Your task to perform on an android device: Open Google Chrome and open the bookmarks view Image 0: 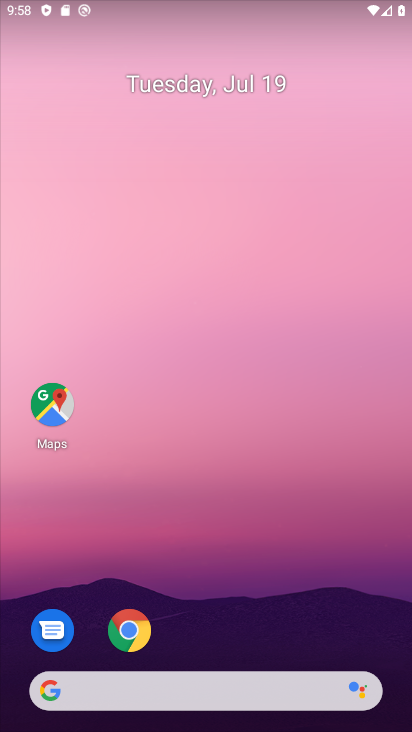
Step 0: drag from (182, 664) to (197, 201)
Your task to perform on an android device: Open Google Chrome and open the bookmarks view Image 1: 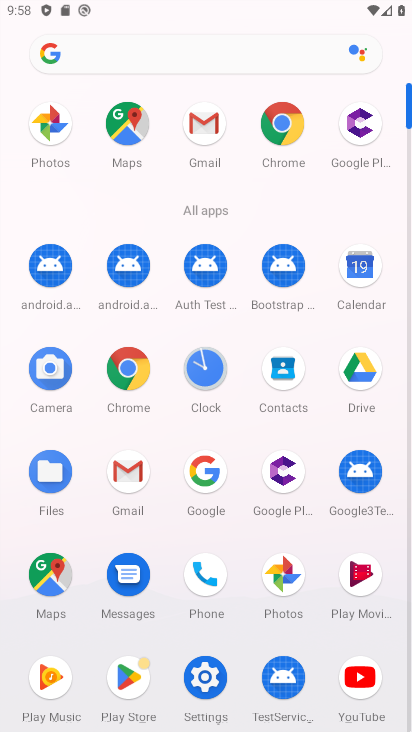
Step 1: click (295, 131)
Your task to perform on an android device: Open Google Chrome and open the bookmarks view Image 2: 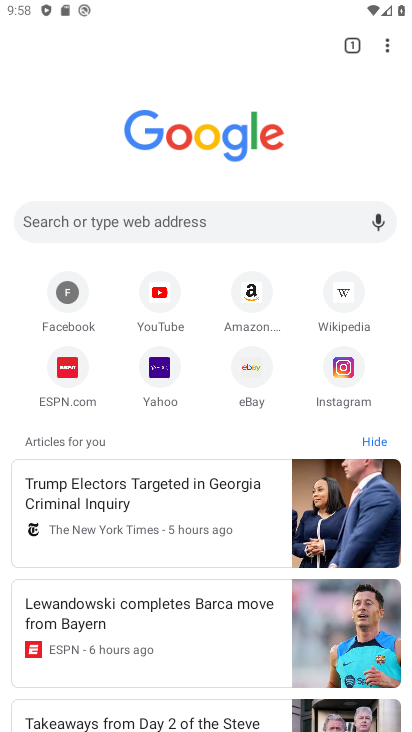
Step 2: click (385, 47)
Your task to perform on an android device: Open Google Chrome and open the bookmarks view Image 3: 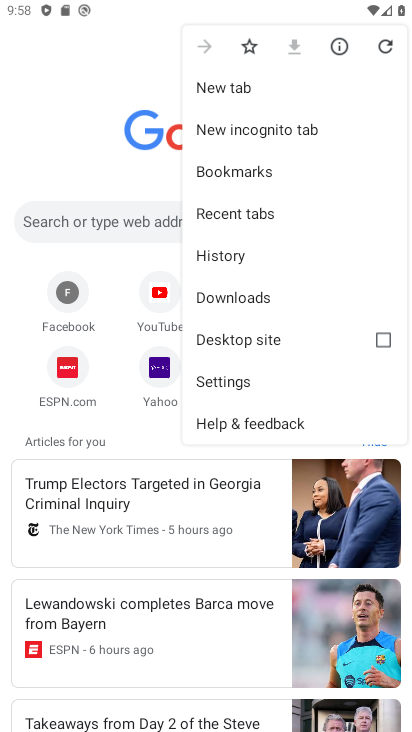
Step 3: click (231, 175)
Your task to perform on an android device: Open Google Chrome and open the bookmarks view Image 4: 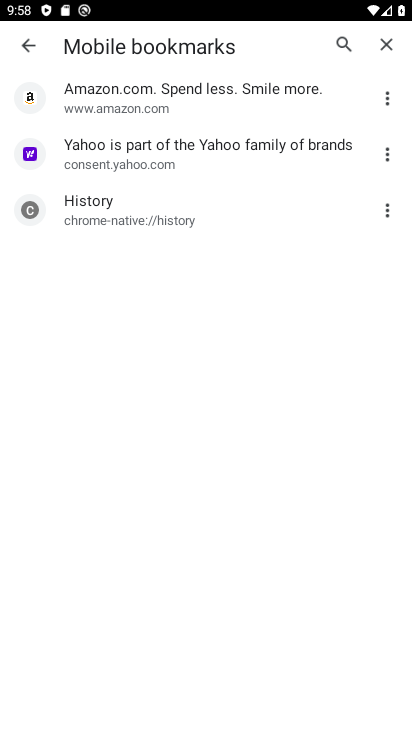
Step 4: task complete